Your task to perform on an android device: set default search engine in the chrome app Image 0: 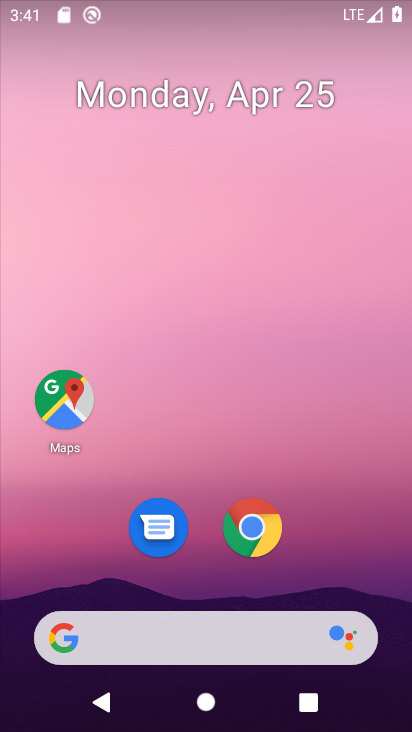
Step 0: click (255, 528)
Your task to perform on an android device: set default search engine in the chrome app Image 1: 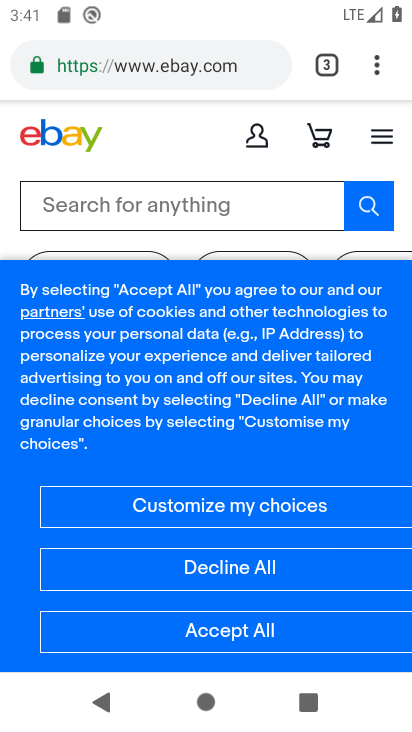
Step 1: click (373, 68)
Your task to perform on an android device: set default search engine in the chrome app Image 2: 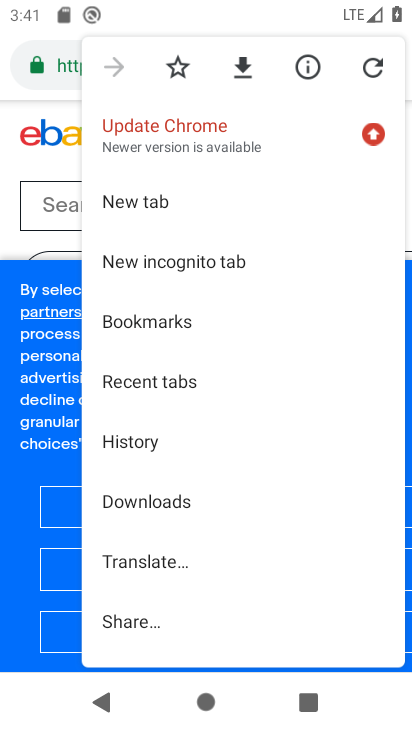
Step 2: drag from (211, 526) to (254, 171)
Your task to perform on an android device: set default search engine in the chrome app Image 3: 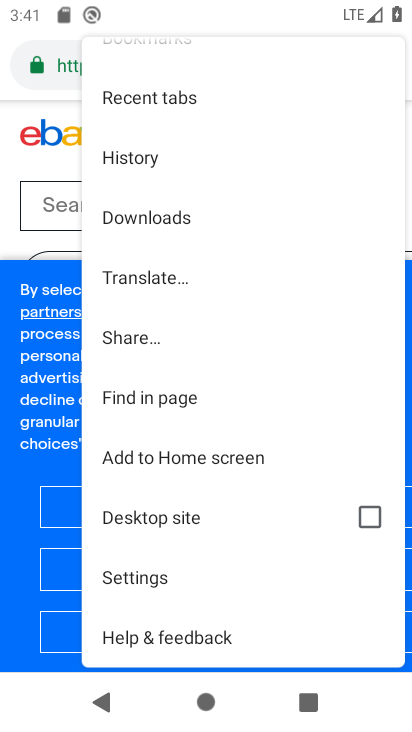
Step 3: click (113, 590)
Your task to perform on an android device: set default search engine in the chrome app Image 4: 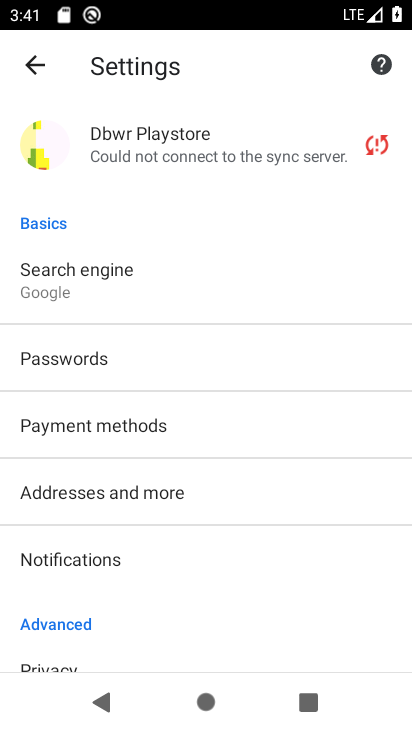
Step 4: click (66, 278)
Your task to perform on an android device: set default search engine in the chrome app Image 5: 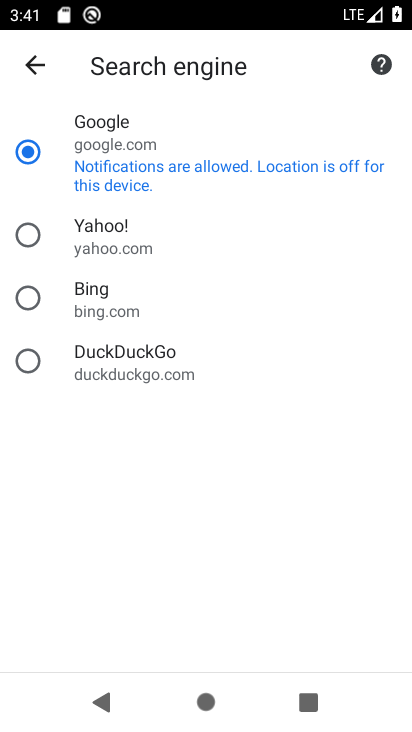
Step 5: click (21, 237)
Your task to perform on an android device: set default search engine in the chrome app Image 6: 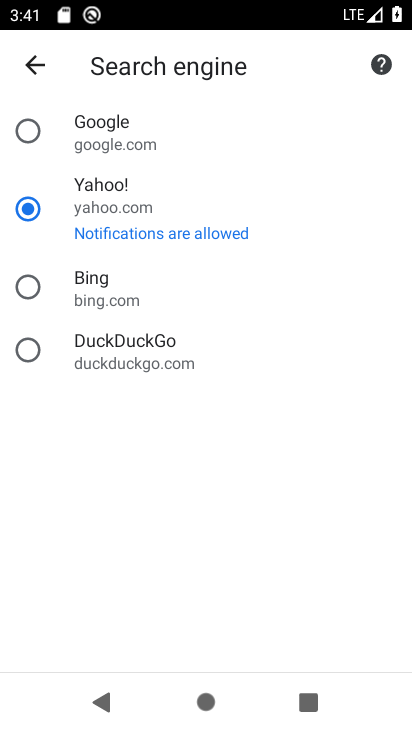
Step 6: task complete